Your task to perform on an android device: change the clock display to analog Image 0: 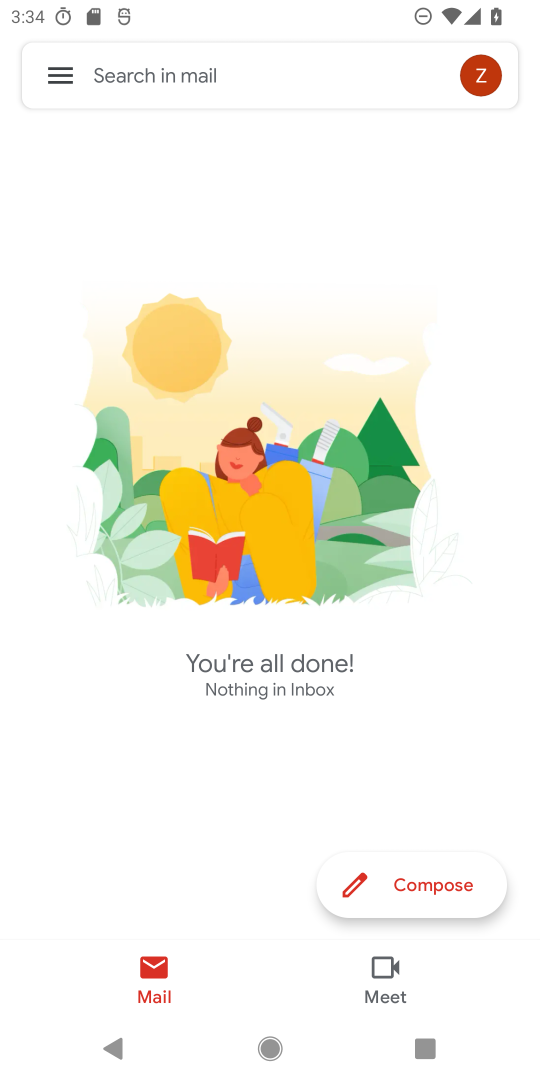
Step 0: press home button
Your task to perform on an android device: change the clock display to analog Image 1: 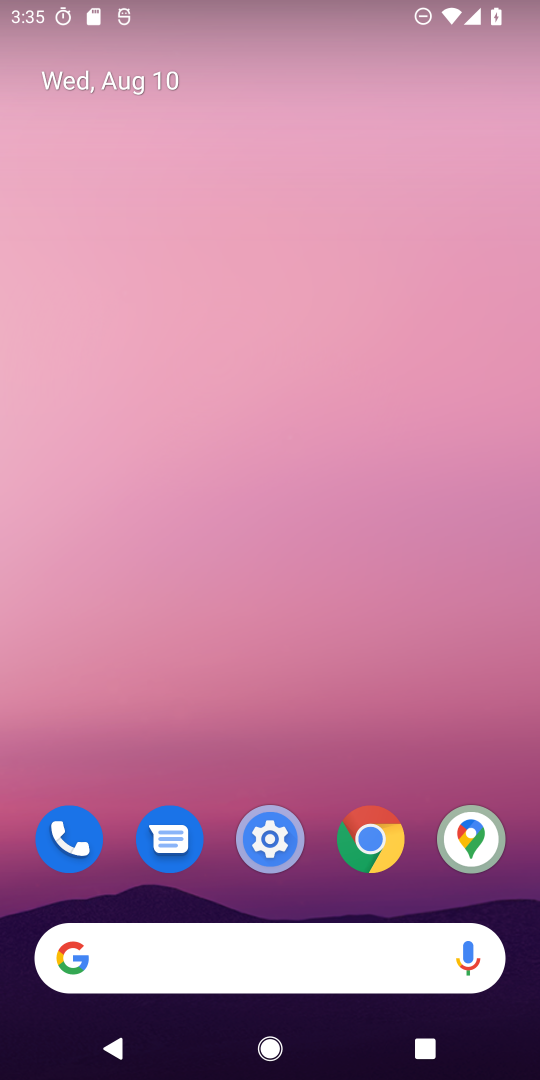
Step 1: drag from (79, 1029) to (299, 254)
Your task to perform on an android device: change the clock display to analog Image 2: 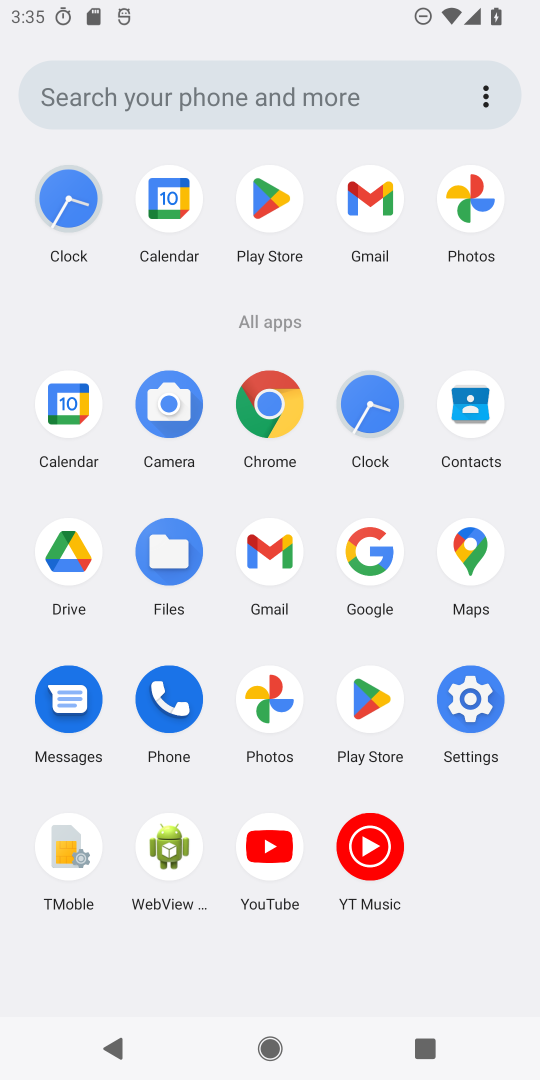
Step 2: click (372, 427)
Your task to perform on an android device: change the clock display to analog Image 3: 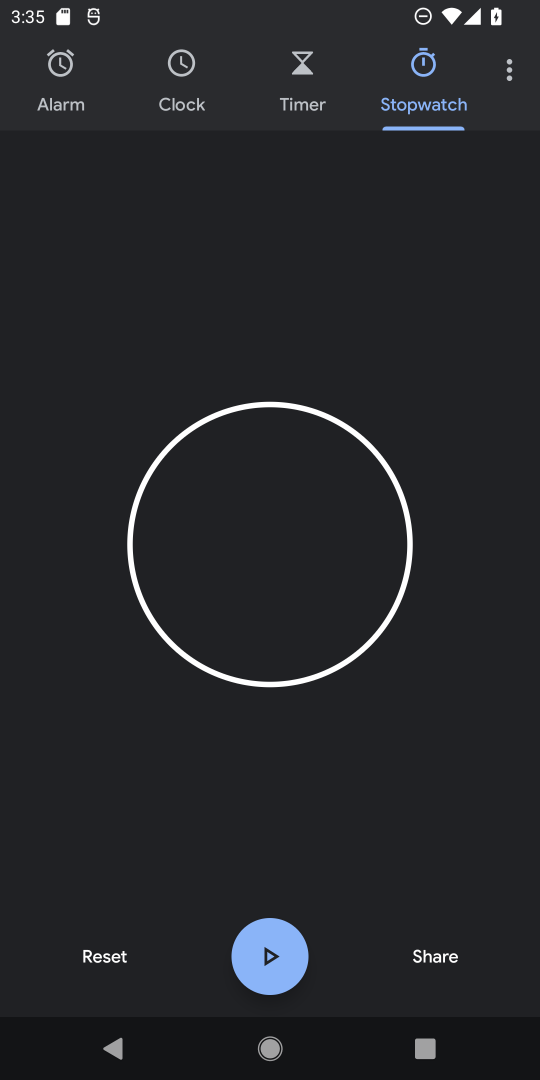
Step 3: click (190, 101)
Your task to perform on an android device: change the clock display to analog Image 4: 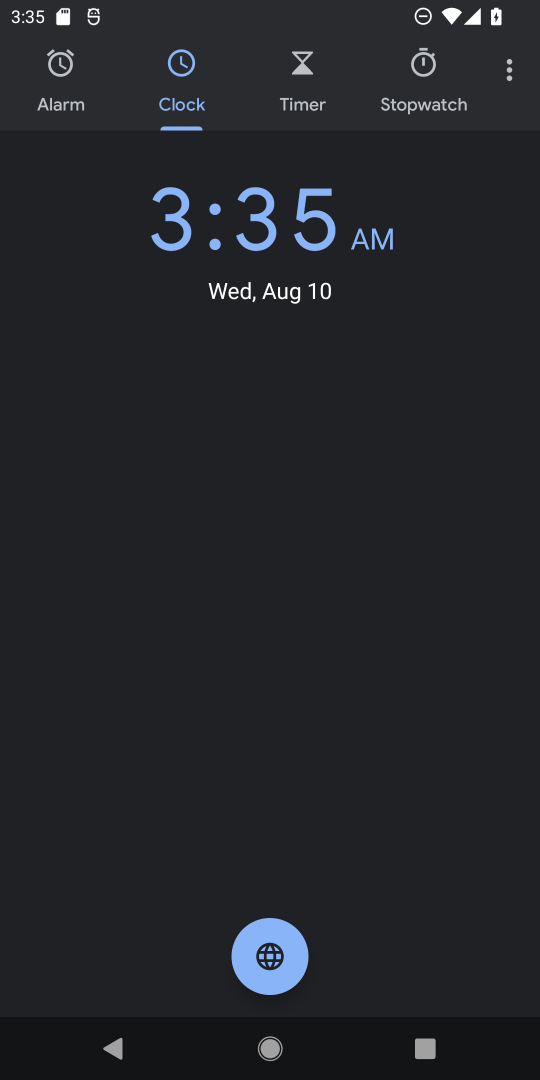
Step 4: click (504, 78)
Your task to perform on an android device: change the clock display to analog Image 5: 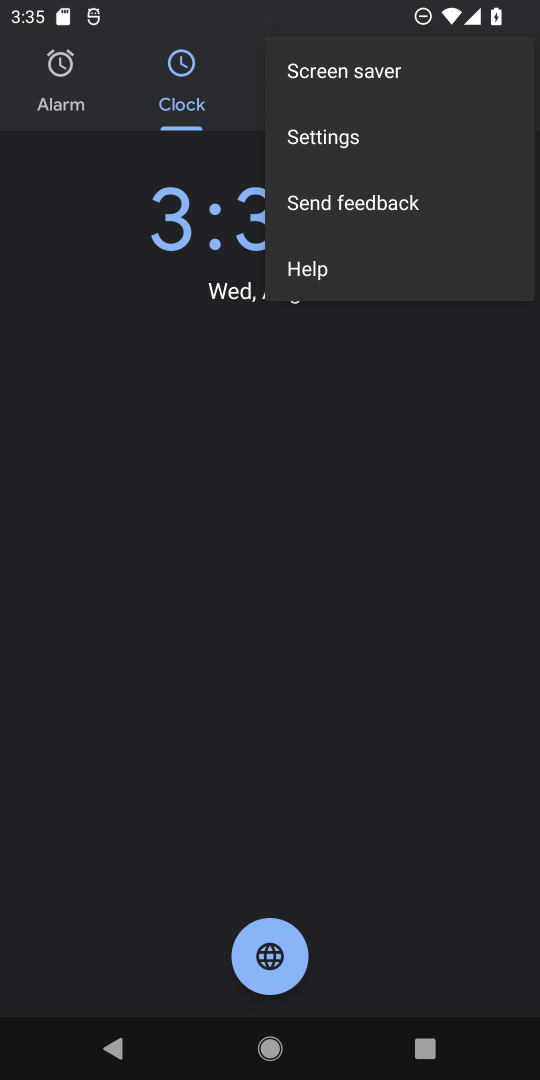
Step 5: click (338, 147)
Your task to perform on an android device: change the clock display to analog Image 6: 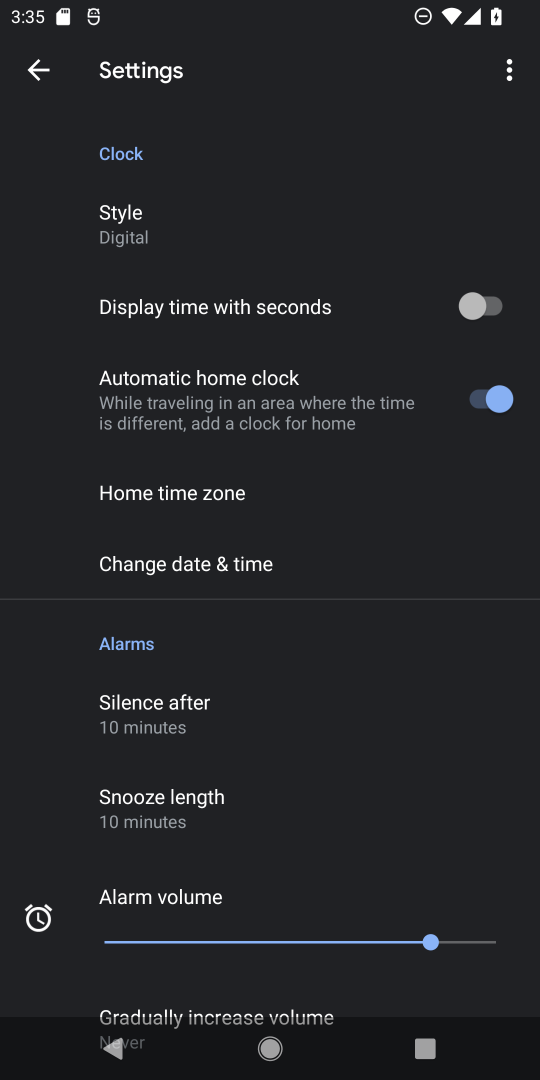
Step 6: task complete